Your task to perform on an android device: Go to internet settings Image 0: 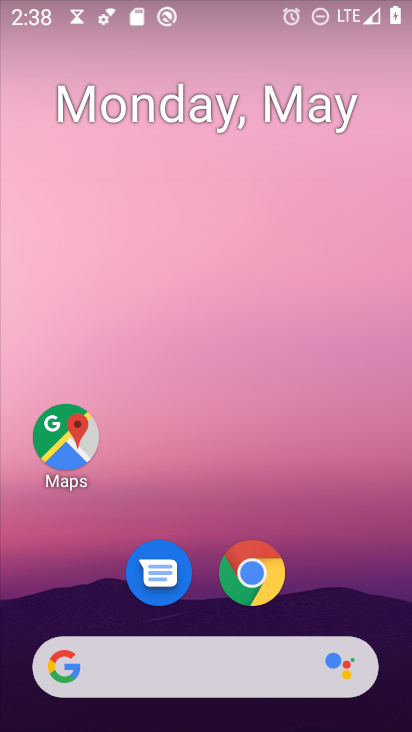
Step 0: drag from (253, 638) to (385, 0)
Your task to perform on an android device: Go to internet settings Image 1: 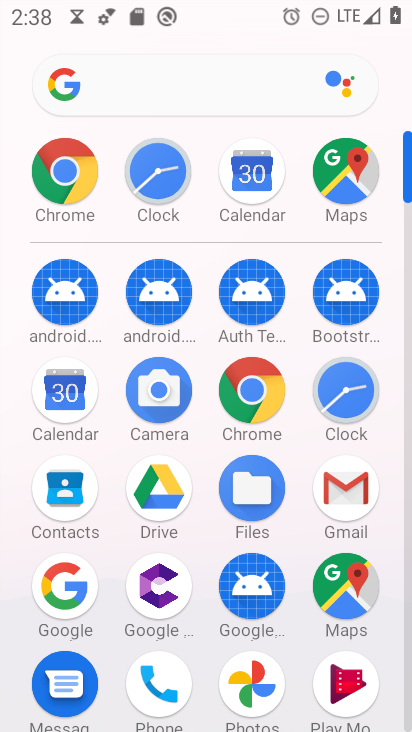
Step 1: drag from (292, 576) to (311, 129)
Your task to perform on an android device: Go to internet settings Image 2: 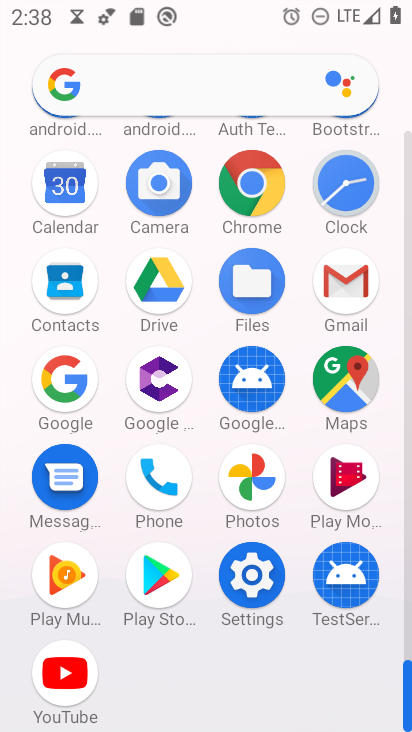
Step 2: click (256, 583)
Your task to perform on an android device: Go to internet settings Image 3: 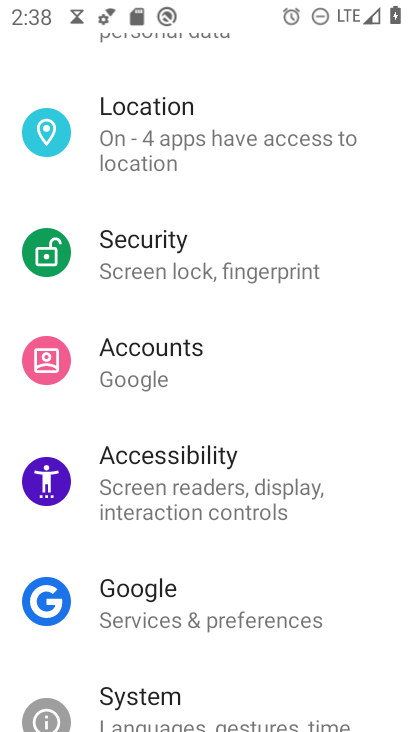
Step 3: drag from (137, 145) to (183, 700)
Your task to perform on an android device: Go to internet settings Image 4: 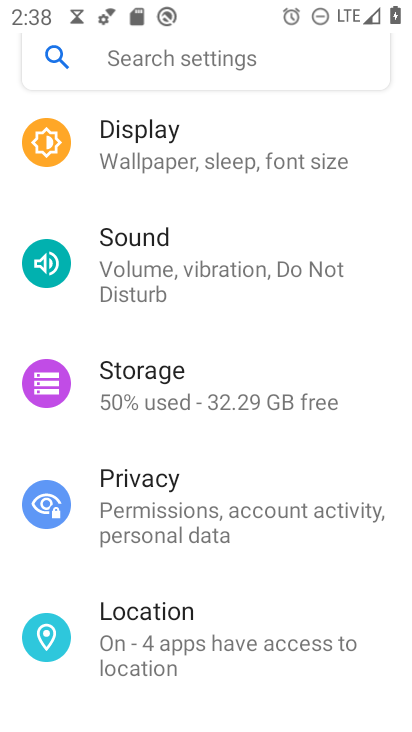
Step 4: drag from (176, 239) to (243, 711)
Your task to perform on an android device: Go to internet settings Image 5: 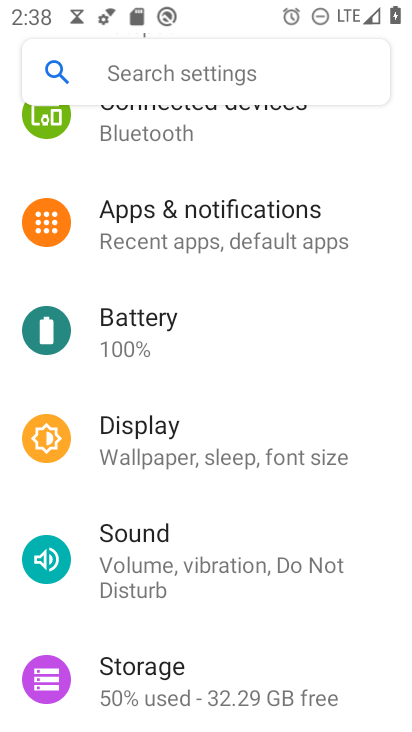
Step 5: drag from (212, 215) to (235, 724)
Your task to perform on an android device: Go to internet settings Image 6: 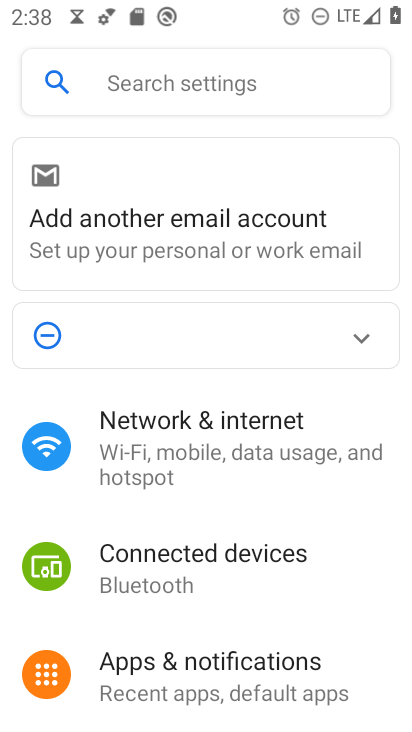
Step 6: click (251, 437)
Your task to perform on an android device: Go to internet settings Image 7: 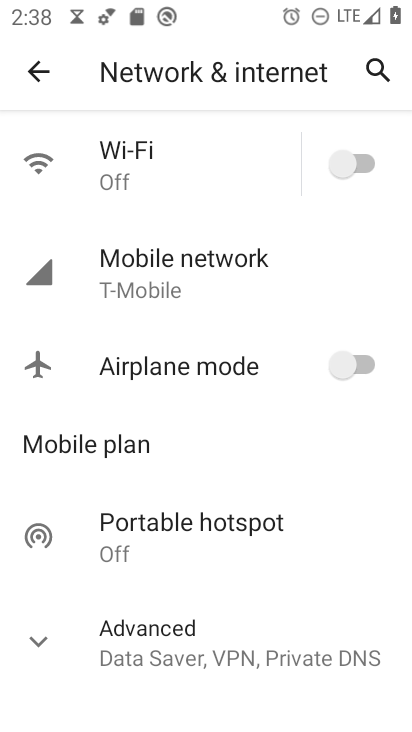
Step 7: task complete